Your task to perform on an android device: open the mobile data screen to see how much data has been used Image 0: 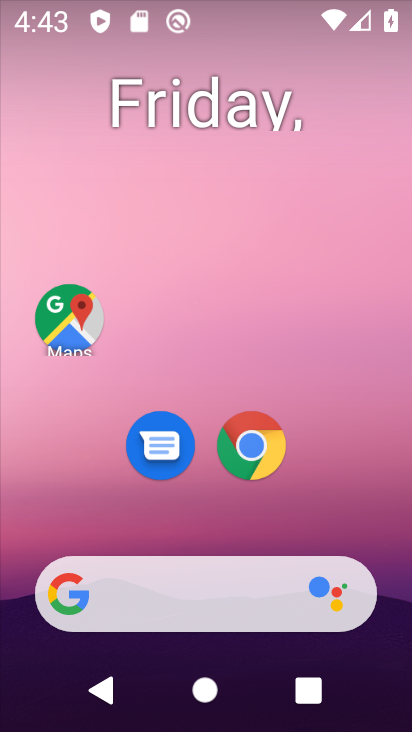
Step 0: drag from (313, 507) to (290, 78)
Your task to perform on an android device: open the mobile data screen to see how much data has been used Image 1: 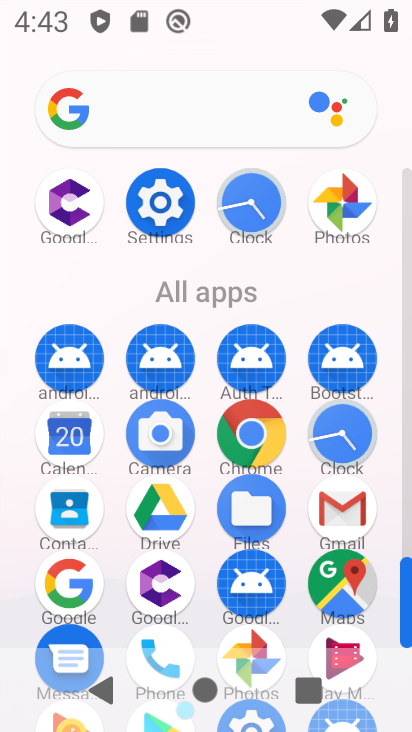
Step 1: click (174, 229)
Your task to perform on an android device: open the mobile data screen to see how much data has been used Image 2: 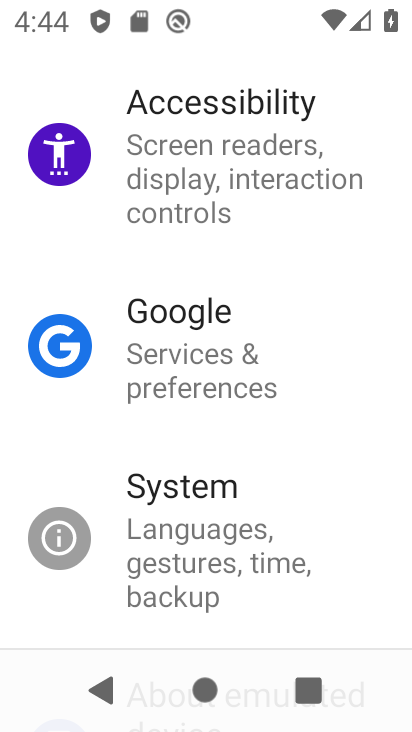
Step 2: drag from (180, 159) to (202, 683)
Your task to perform on an android device: open the mobile data screen to see how much data has been used Image 3: 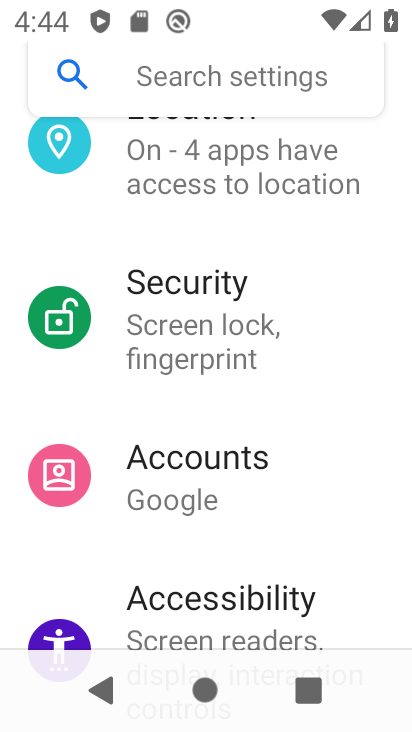
Step 3: drag from (216, 314) to (269, 709)
Your task to perform on an android device: open the mobile data screen to see how much data has been used Image 4: 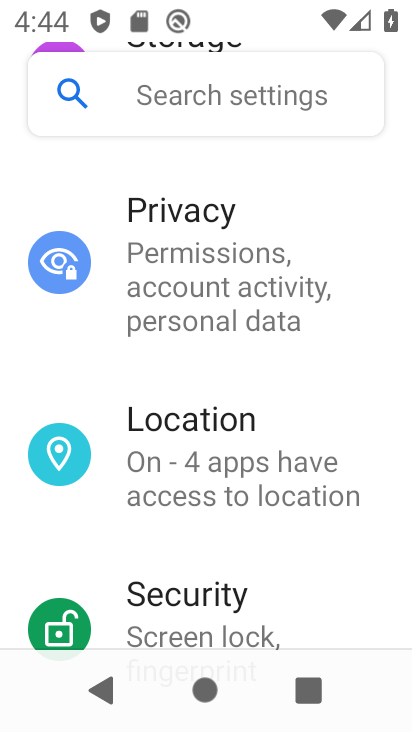
Step 4: drag from (244, 227) to (312, 730)
Your task to perform on an android device: open the mobile data screen to see how much data has been used Image 5: 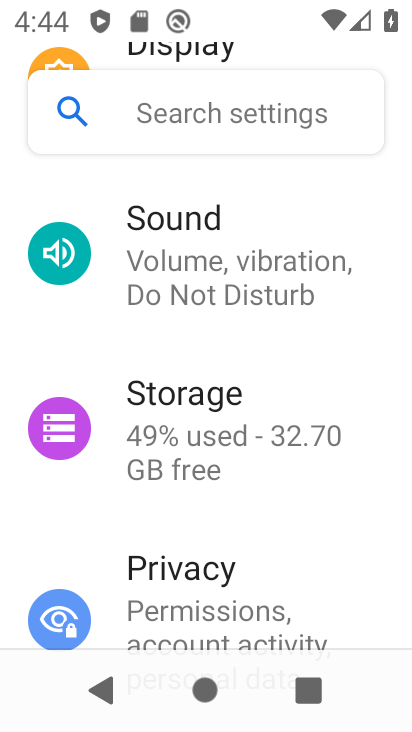
Step 5: drag from (248, 200) to (296, 691)
Your task to perform on an android device: open the mobile data screen to see how much data has been used Image 6: 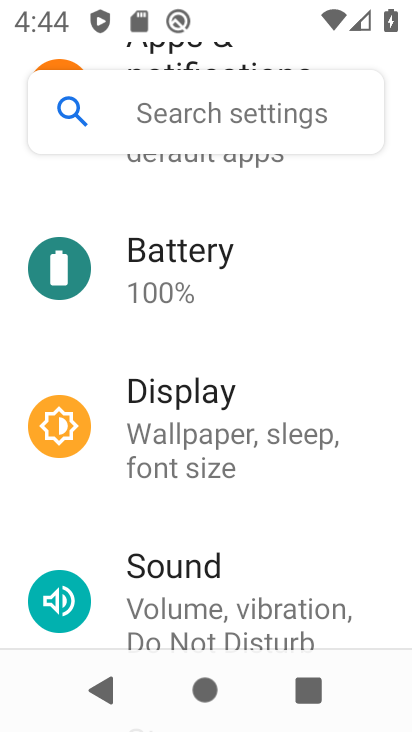
Step 6: drag from (243, 246) to (285, 700)
Your task to perform on an android device: open the mobile data screen to see how much data has been used Image 7: 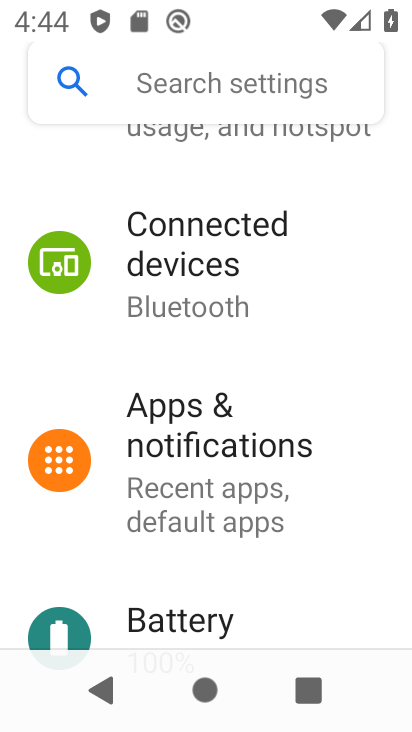
Step 7: drag from (236, 270) to (254, 665)
Your task to perform on an android device: open the mobile data screen to see how much data has been used Image 8: 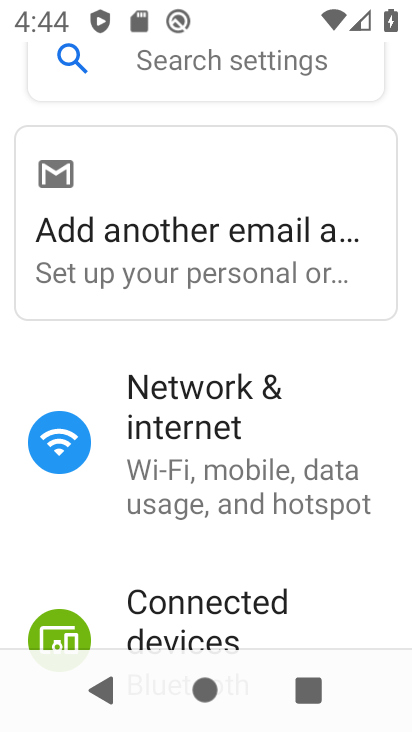
Step 8: click (246, 482)
Your task to perform on an android device: open the mobile data screen to see how much data has been used Image 9: 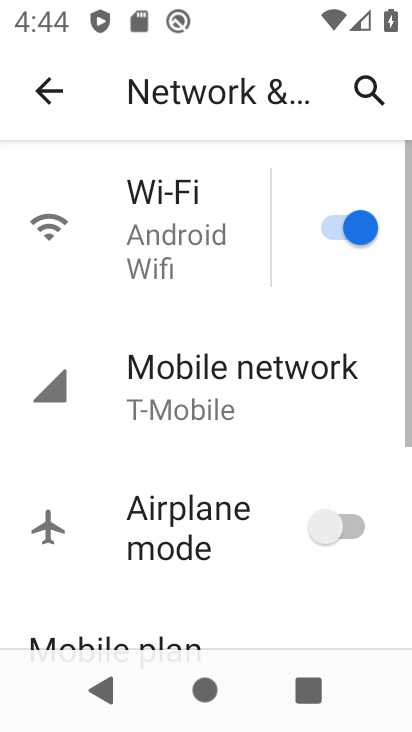
Step 9: task complete